Your task to perform on an android device: Search for seafood restaurants on Google Maps Image 0: 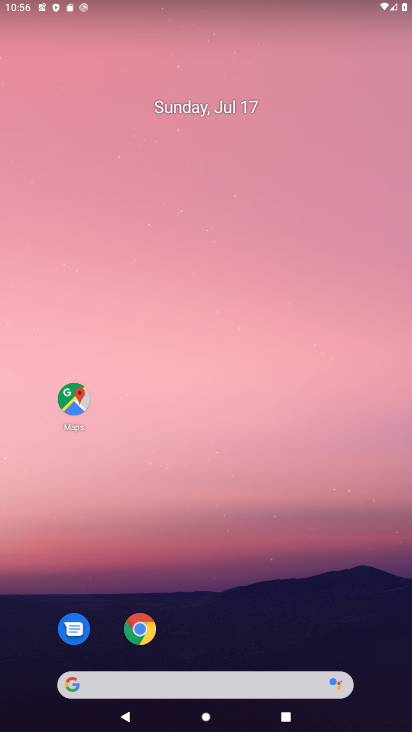
Step 0: click (69, 396)
Your task to perform on an android device: Search for seafood restaurants on Google Maps Image 1: 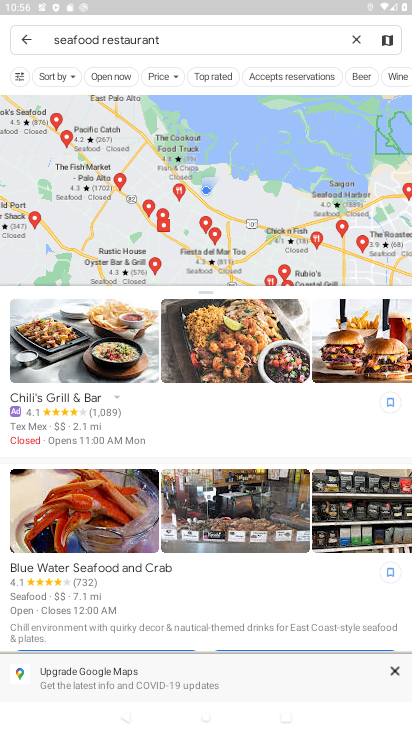
Step 1: task complete